Your task to perform on an android device: Go to privacy settings Image 0: 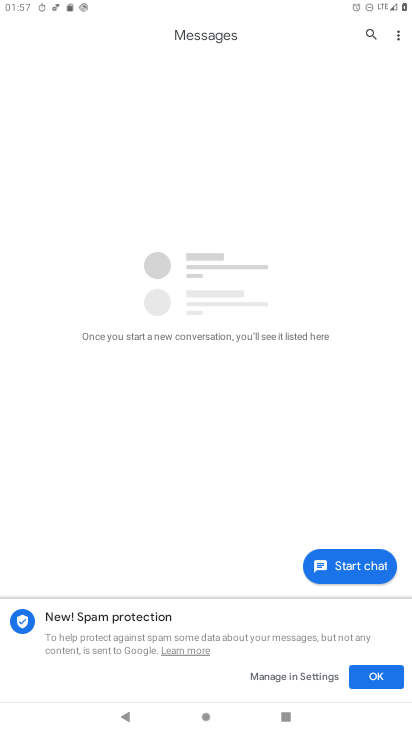
Step 0: press home button
Your task to perform on an android device: Go to privacy settings Image 1: 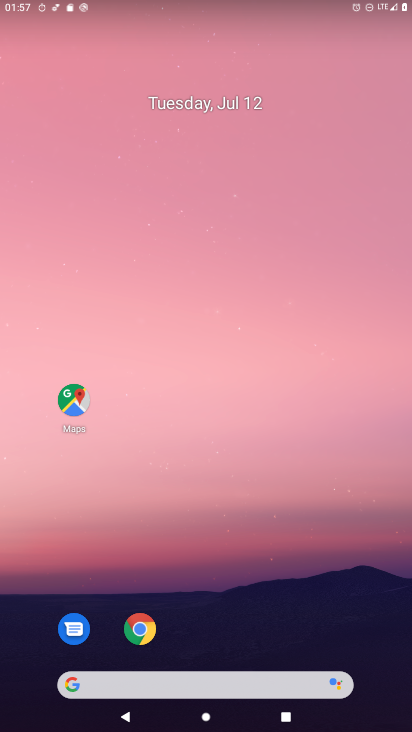
Step 1: drag from (23, 702) to (158, 215)
Your task to perform on an android device: Go to privacy settings Image 2: 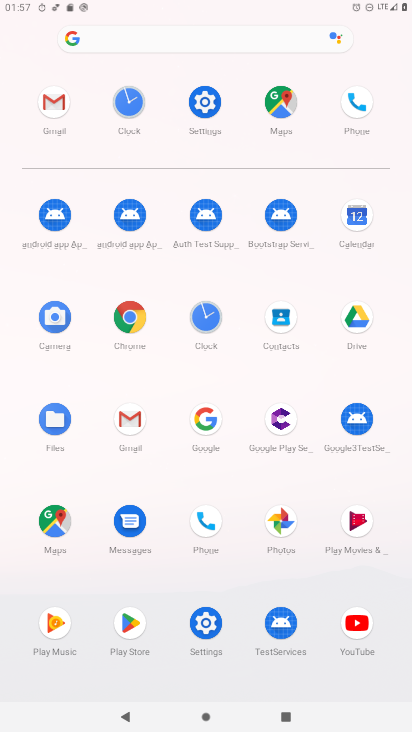
Step 2: click (204, 624)
Your task to perform on an android device: Go to privacy settings Image 3: 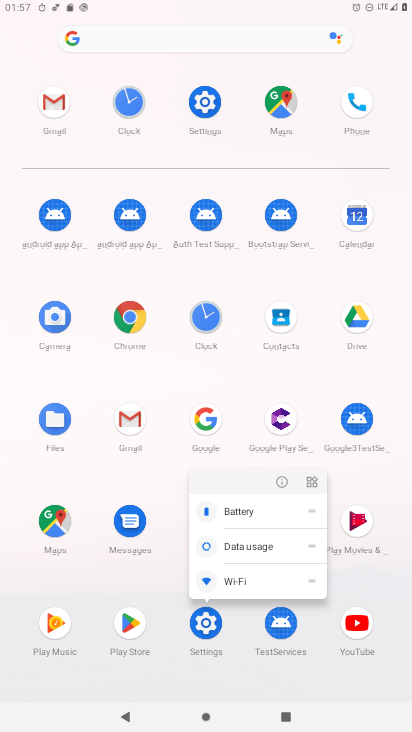
Step 3: click (203, 625)
Your task to perform on an android device: Go to privacy settings Image 4: 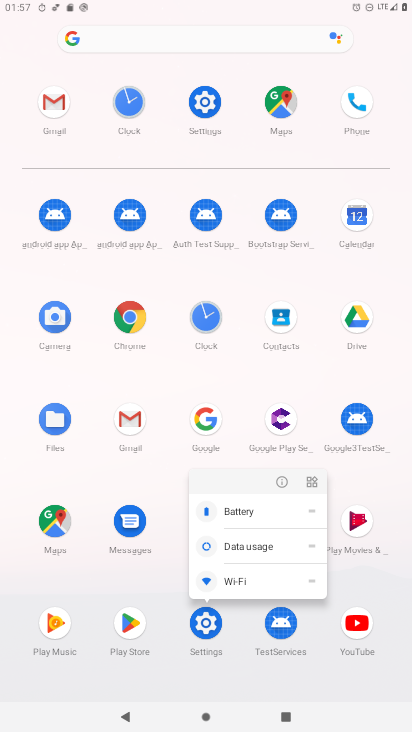
Step 4: click (198, 625)
Your task to perform on an android device: Go to privacy settings Image 5: 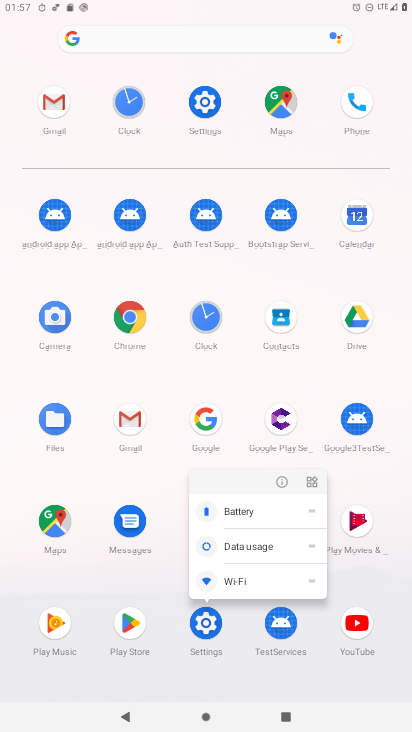
Step 5: click (210, 621)
Your task to perform on an android device: Go to privacy settings Image 6: 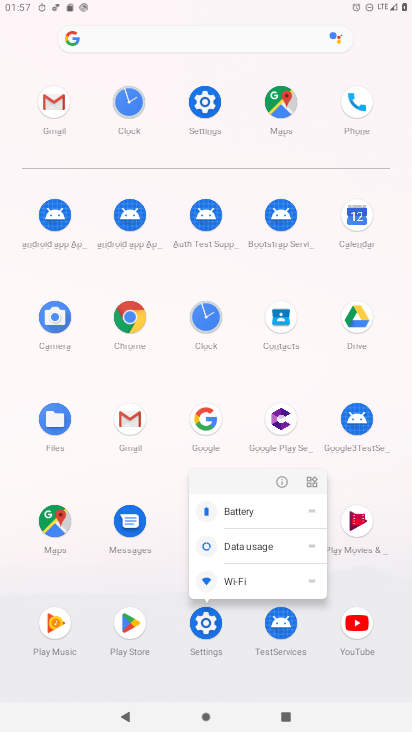
Step 6: task complete